Your task to perform on an android device: Go to Reddit.com Image 0: 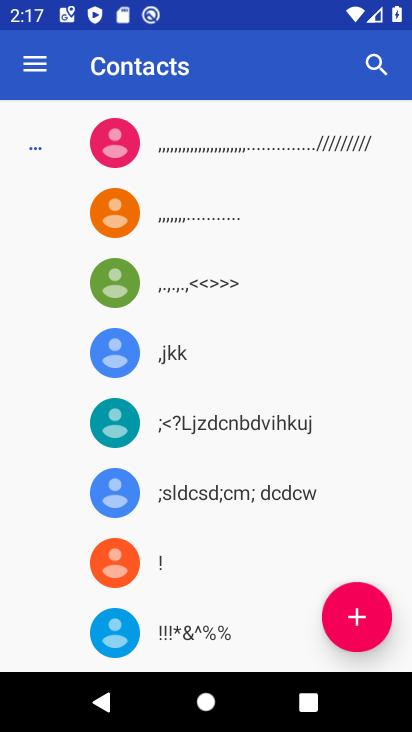
Step 0: press home button
Your task to perform on an android device: Go to Reddit.com Image 1: 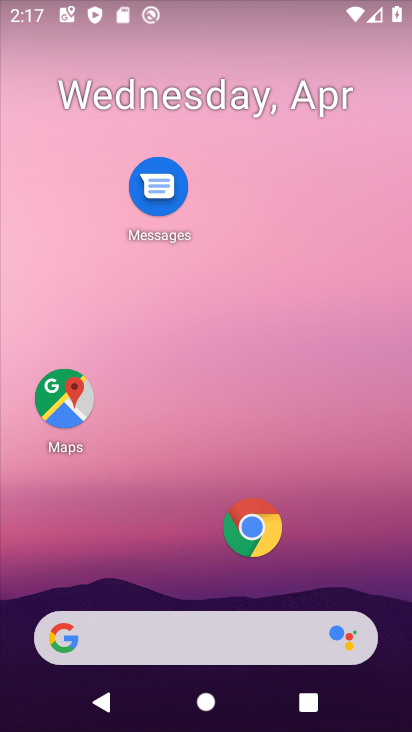
Step 1: click (252, 530)
Your task to perform on an android device: Go to Reddit.com Image 2: 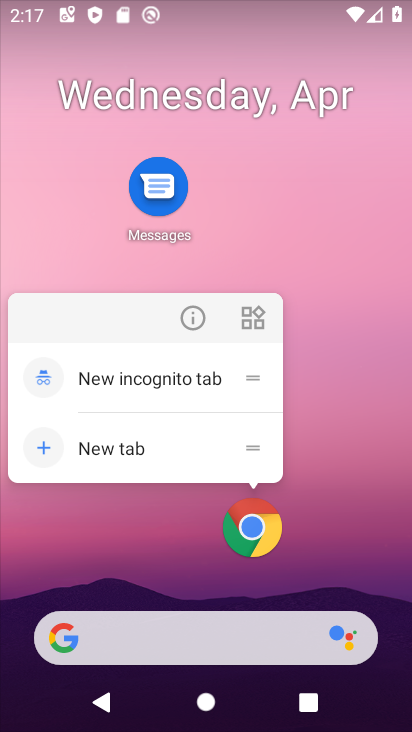
Step 2: click (189, 326)
Your task to perform on an android device: Go to Reddit.com Image 3: 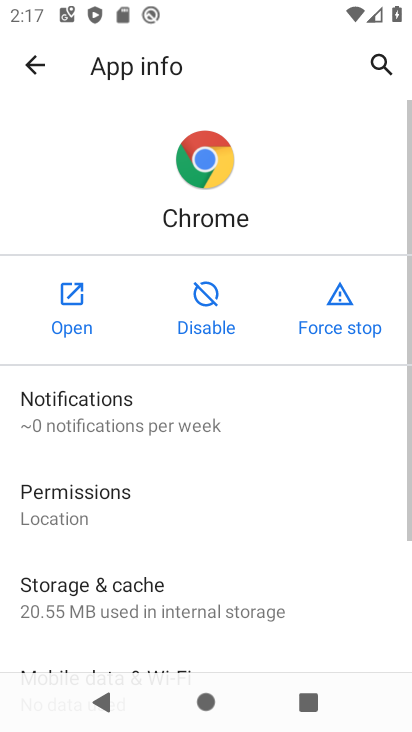
Step 3: click (68, 331)
Your task to perform on an android device: Go to Reddit.com Image 4: 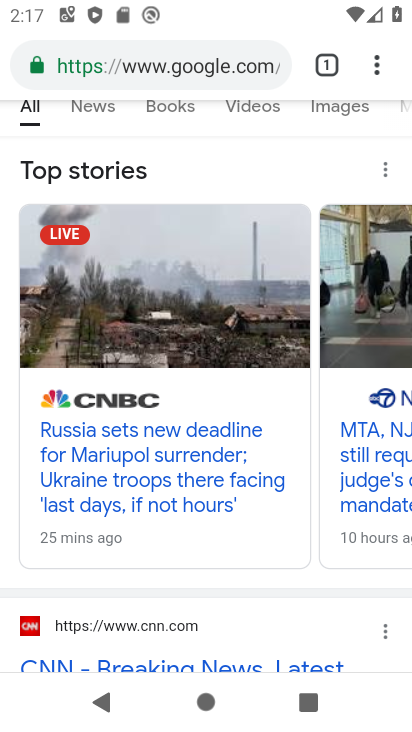
Step 4: click (143, 52)
Your task to perform on an android device: Go to Reddit.com Image 5: 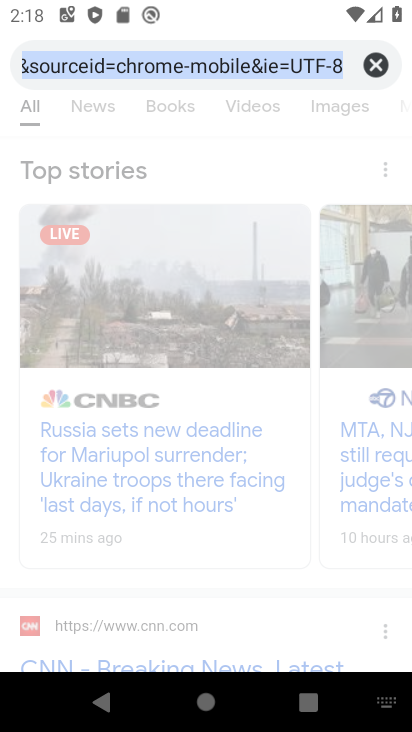
Step 5: type "Reddit.com"
Your task to perform on an android device: Go to Reddit.com Image 6: 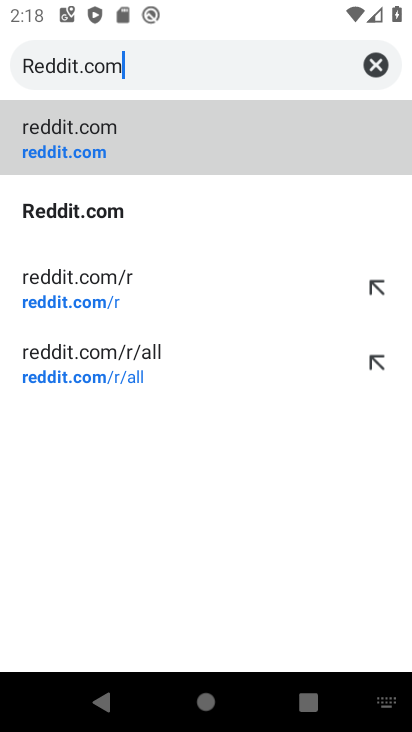
Step 6: click (106, 152)
Your task to perform on an android device: Go to Reddit.com Image 7: 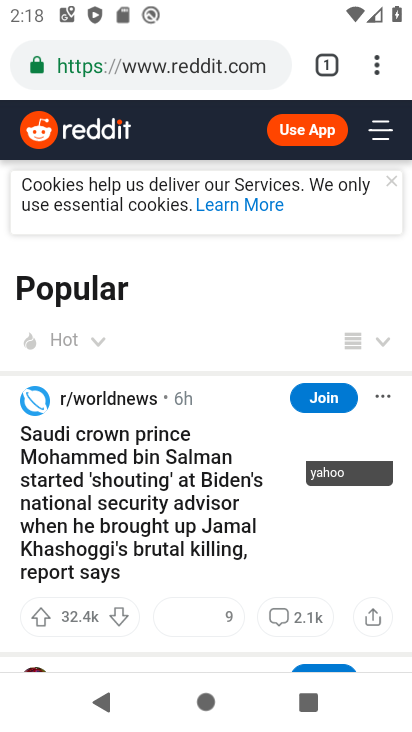
Step 7: task complete